Your task to perform on an android device: Open my contact list Image 0: 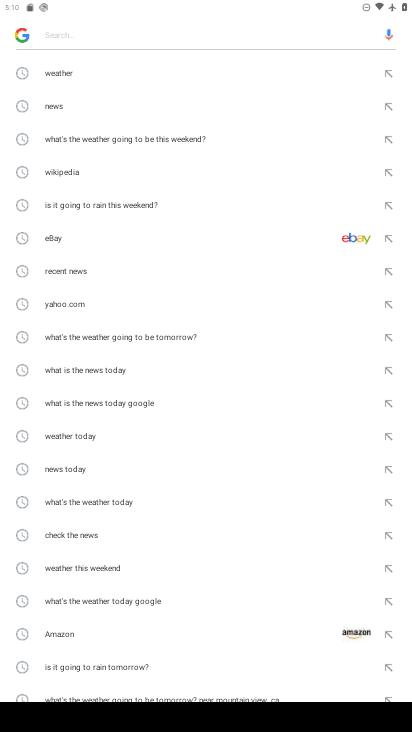
Step 0: press home button
Your task to perform on an android device: Open my contact list Image 1: 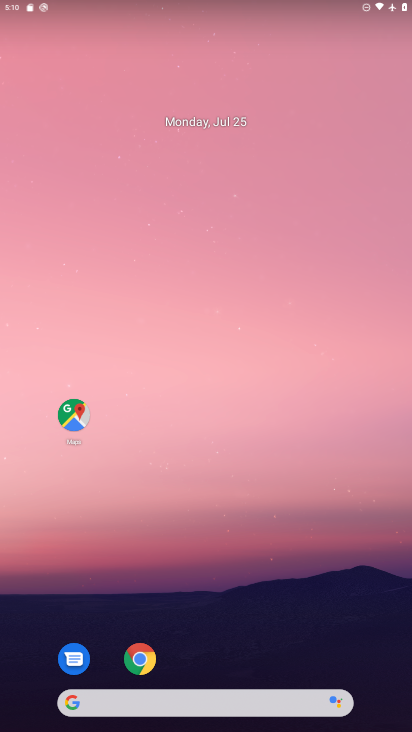
Step 1: drag from (228, 664) to (187, 145)
Your task to perform on an android device: Open my contact list Image 2: 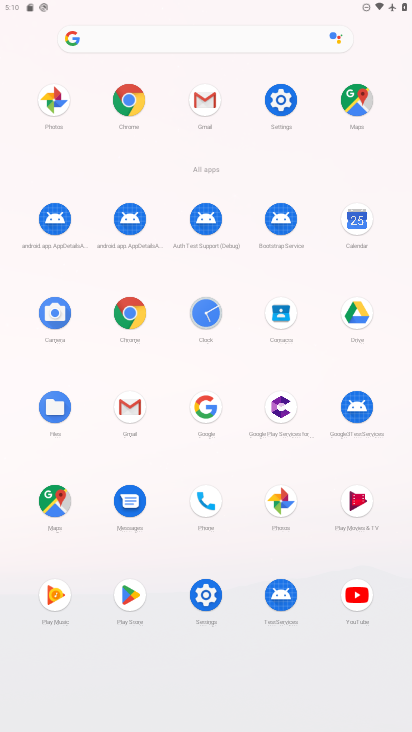
Step 2: click (286, 328)
Your task to perform on an android device: Open my contact list Image 3: 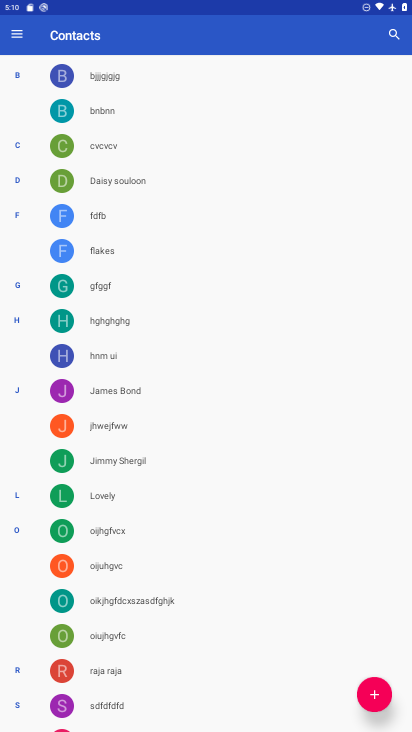
Step 3: task complete